Your task to perform on an android device: turn vacation reply on in the gmail app Image 0: 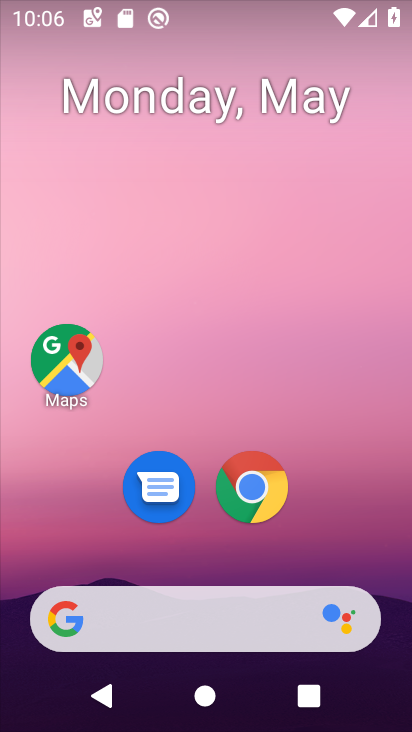
Step 0: drag from (329, 551) to (337, 33)
Your task to perform on an android device: turn vacation reply on in the gmail app Image 1: 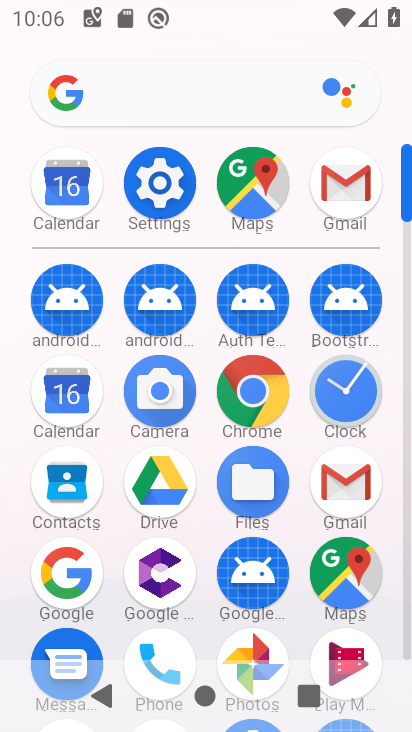
Step 1: click (332, 486)
Your task to perform on an android device: turn vacation reply on in the gmail app Image 2: 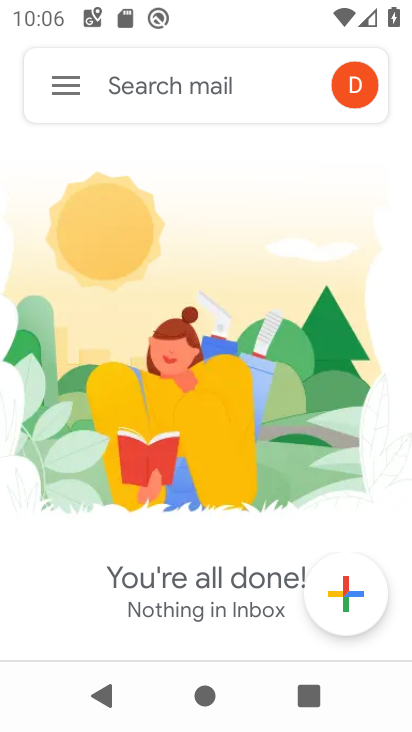
Step 2: click (63, 85)
Your task to perform on an android device: turn vacation reply on in the gmail app Image 3: 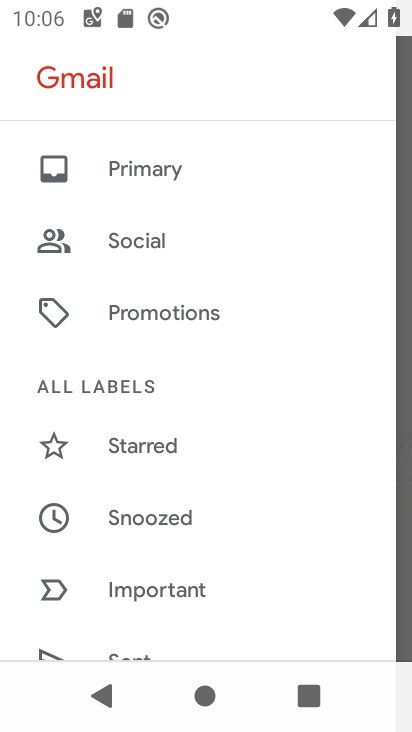
Step 3: drag from (139, 604) to (155, 349)
Your task to perform on an android device: turn vacation reply on in the gmail app Image 4: 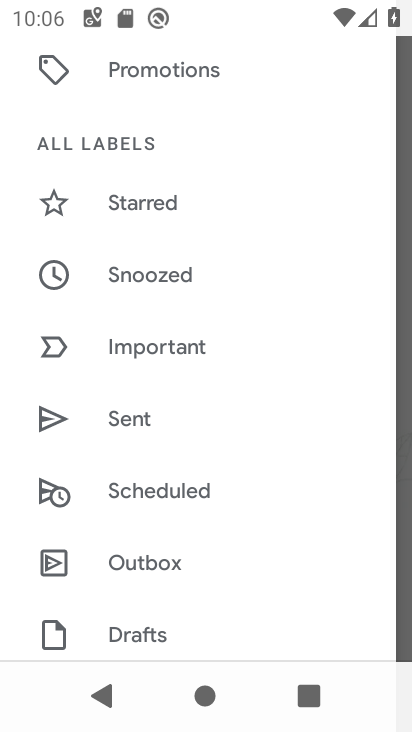
Step 4: drag from (175, 612) to (182, 326)
Your task to perform on an android device: turn vacation reply on in the gmail app Image 5: 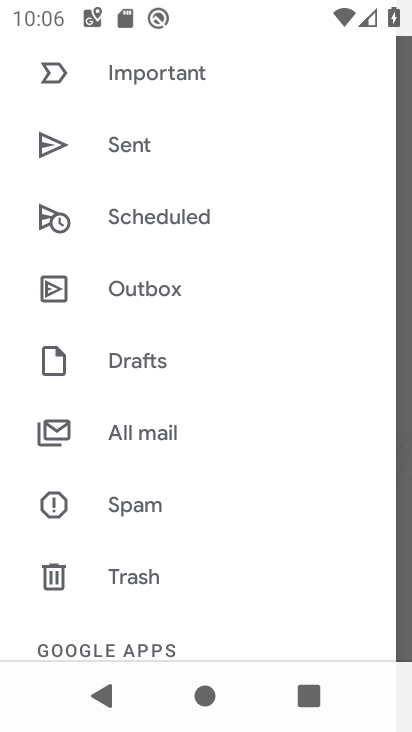
Step 5: drag from (181, 604) to (176, 395)
Your task to perform on an android device: turn vacation reply on in the gmail app Image 6: 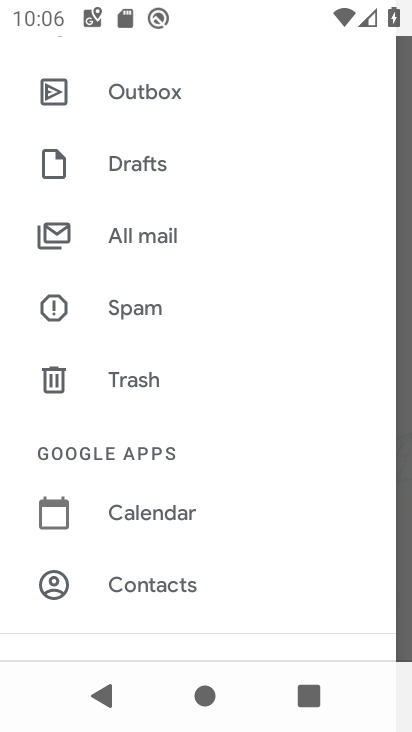
Step 6: drag from (171, 610) to (157, 386)
Your task to perform on an android device: turn vacation reply on in the gmail app Image 7: 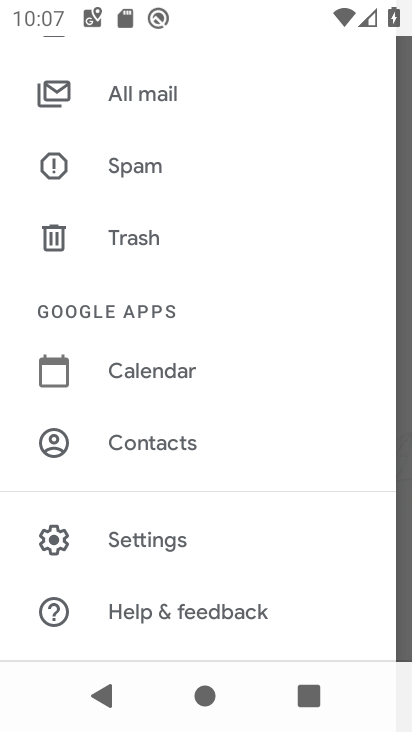
Step 7: click (142, 533)
Your task to perform on an android device: turn vacation reply on in the gmail app Image 8: 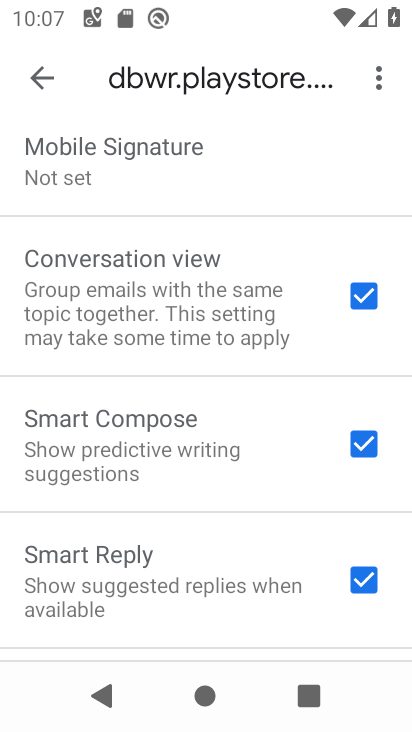
Step 8: drag from (150, 608) to (190, 44)
Your task to perform on an android device: turn vacation reply on in the gmail app Image 9: 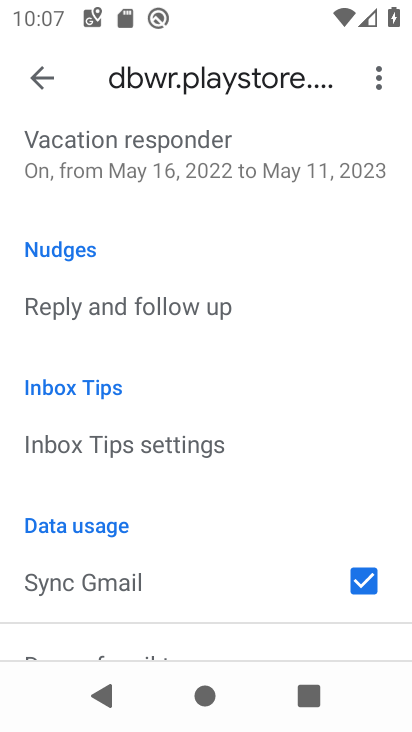
Step 9: click (271, 184)
Your task to perform on an android device: turn vacation reply on in the gmail app Image 10: 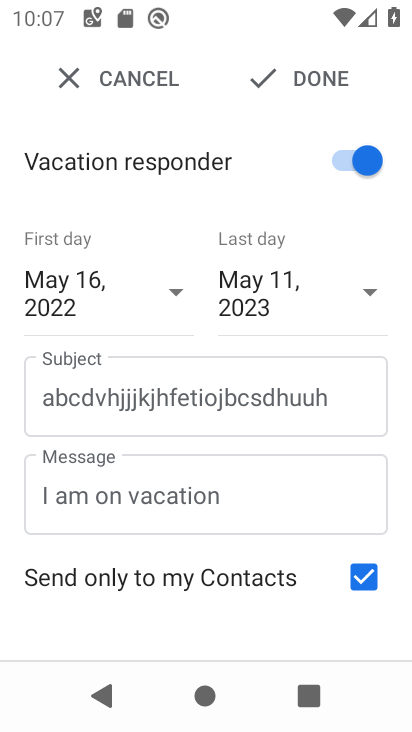
Step 10: click (325, 78)
Your task to perform on an android device: turn vacation reply on in the gmail app Image 11: 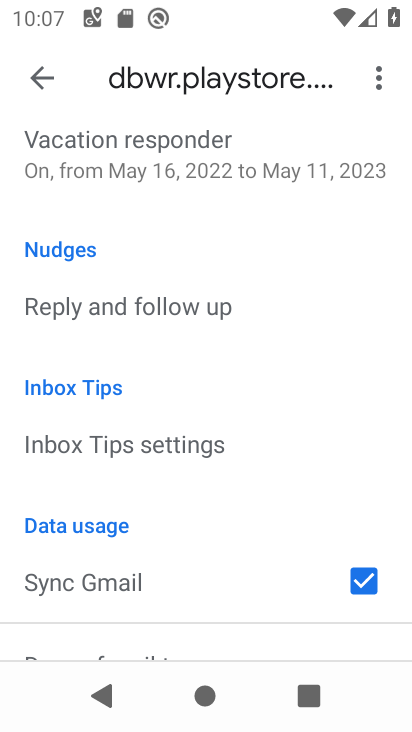
Step 11: task complete